Your task to perform on an android device: When is my next appointment? Image 0: 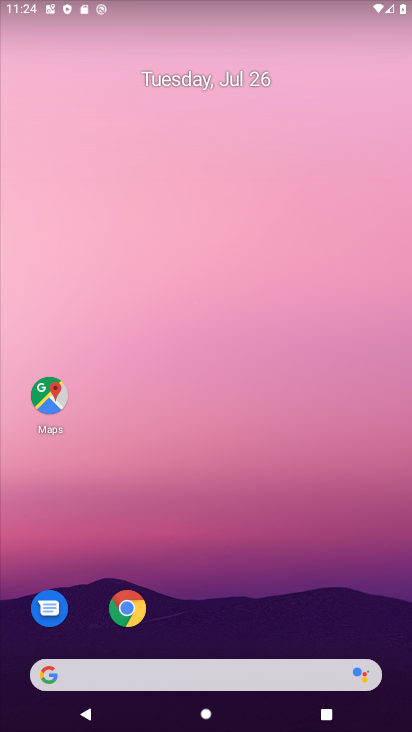
Step 0: drag from (286, 632) to (135, 145)
Your task to perform on an android device: When is my next appointment? Image 1: 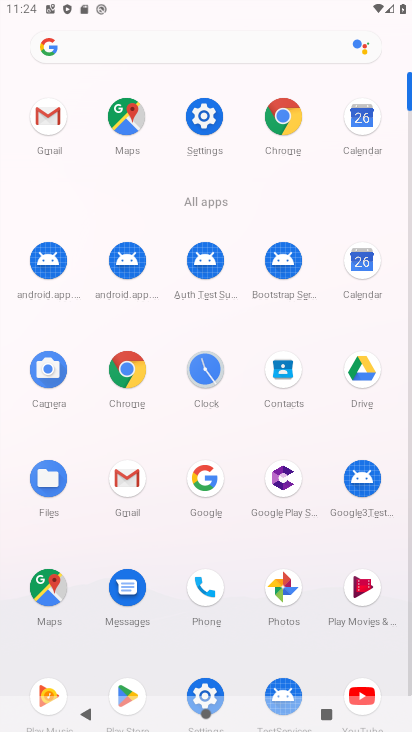
Step 1: click (361, 266)
Your task to perform on an android device: When is my next appointment? Image 2: 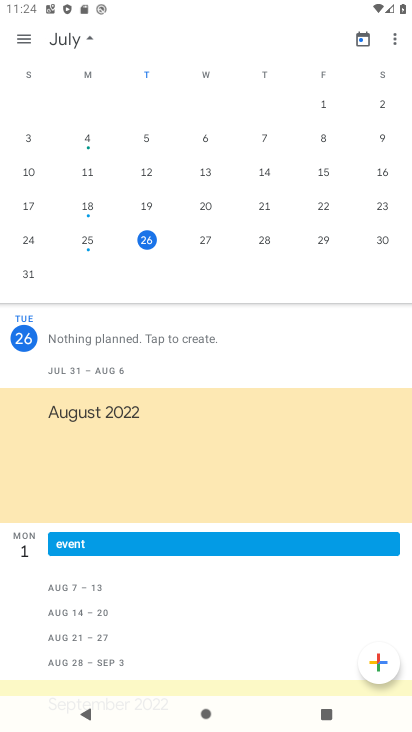
Step 2: task complete